Your task to perform on an android device: move an email to a new category in the gmail app Image 0: 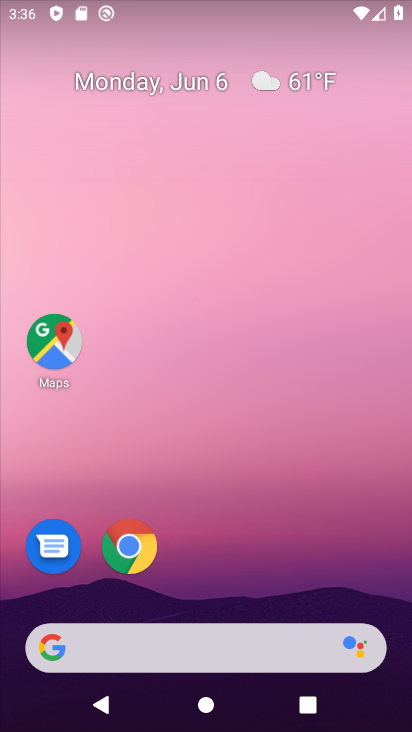
Step 0: drag from (222, 722) to (221, 47)
Your task to perform on an android device: move an email to a new category in the gmail app Image 1: 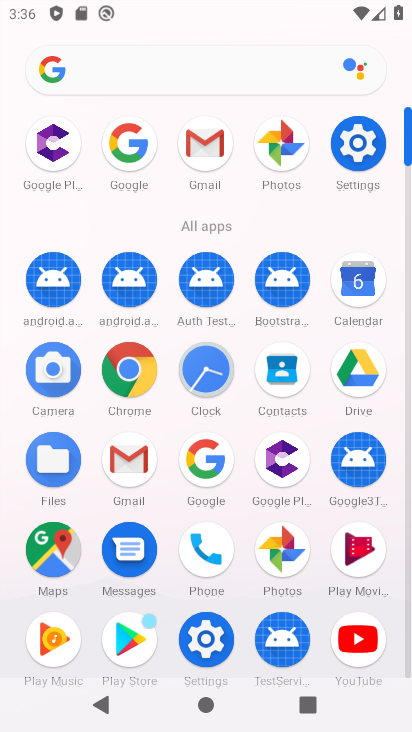
Step 1: click (119, 463)
Your task to perform on an android device: move an email to a new category in the gmail app Image 2: 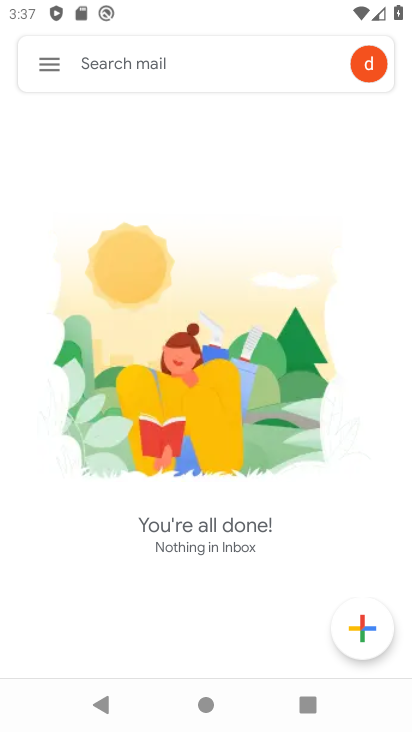
Step 2: task complete